Your task to perform on an android device: Open the Play Movies app and select the watchlist tab. Image 0: 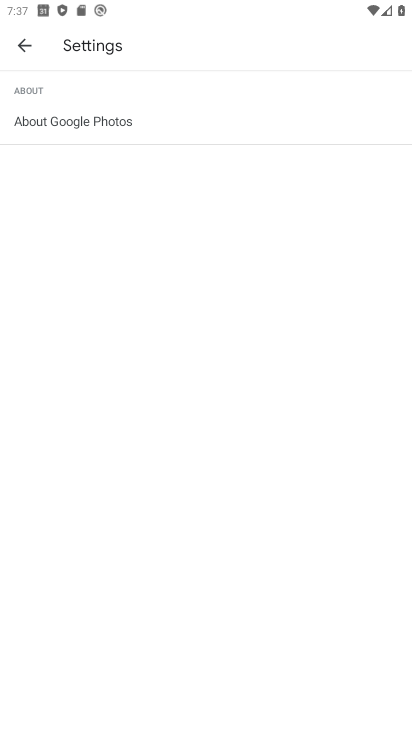
Step 0: press home button
Your task to perform on an android device: Open the Play Movies app and select the watchlist tab. Image 1: 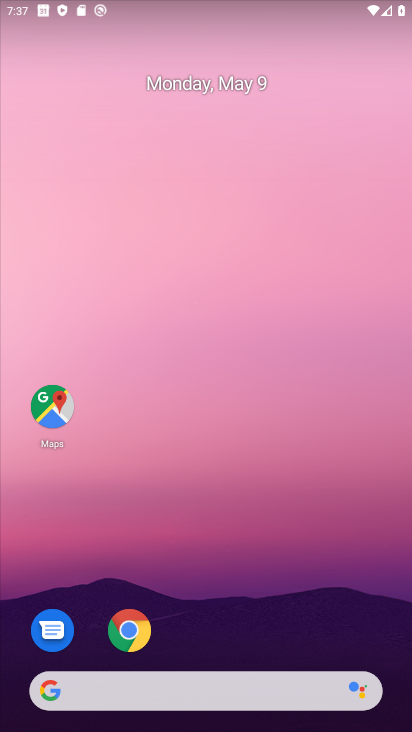
Step 1: drag from (329, 607) to (362, 251)
Your task to perform on an android device: Open the Play Movies app and select the watchlist tab. Image 2: 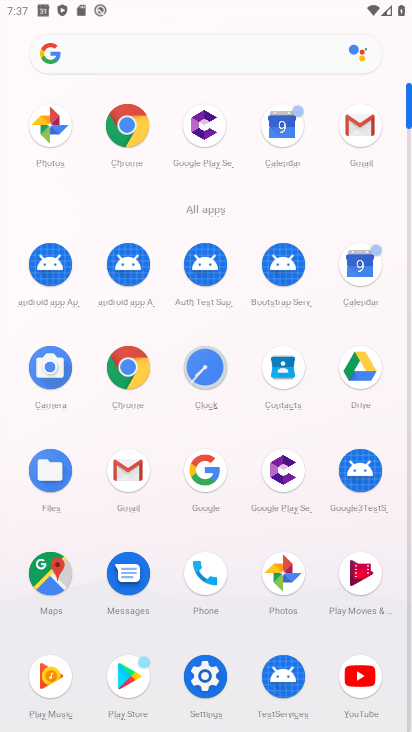
Step 2: click (341, 602)
Your task to perform on an android device: Open the Play Movies app and select the watchlist tab. Image 3: 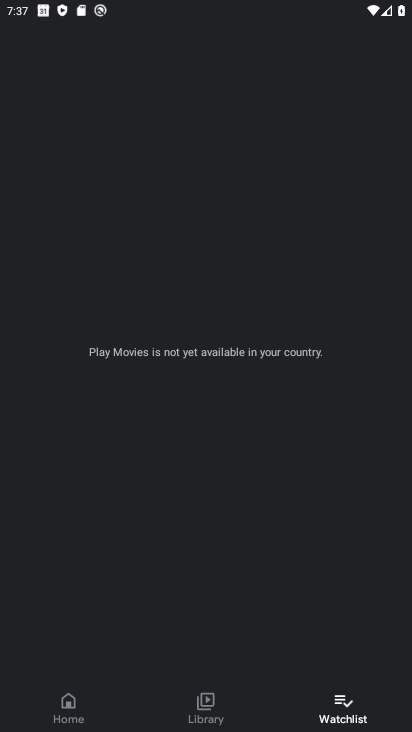
Step 3: task complete